Your task to perform on an android device: turn off picture-in-picture Image 0: 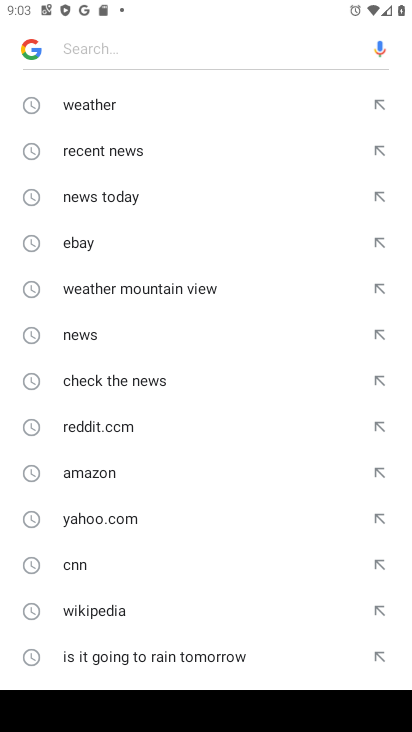
Step 0: press home button
Your task to perform on an android device: turn off picture-in-picture Image 1: 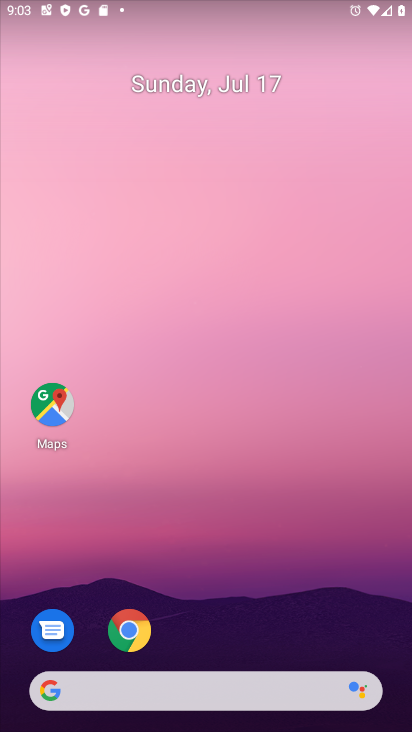
Step 1: drag from (217, 643) to (216, 68)
Your task to perform on an android device: turn off picture-in-picture Image 2: 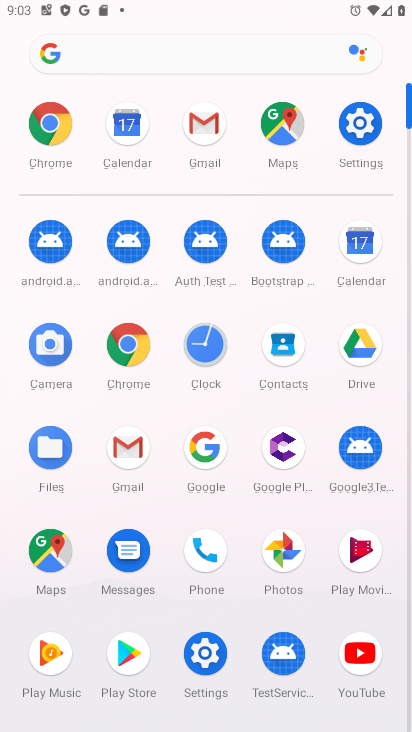
Step 2: click (357, 126)
Your task to perform on an android device: turn off picture-in-picture Image 3: 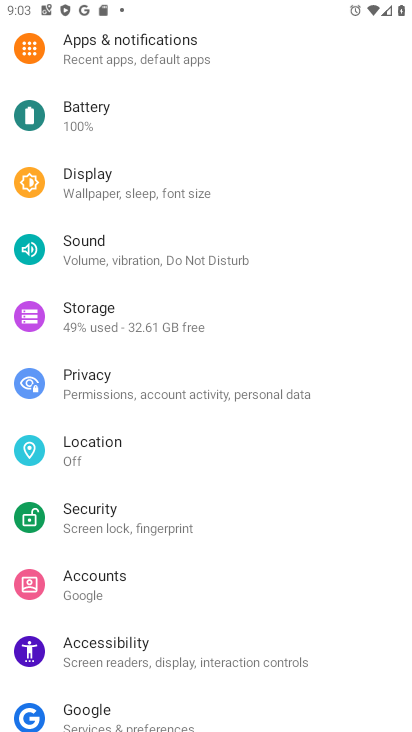
Step 3: click (203, 60)
Your task to perform on an android device: turn off picture-in-picture Image 4: 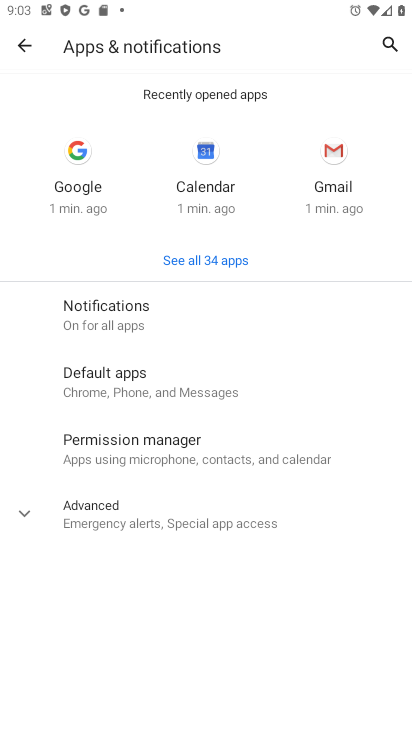
Step 4: click (159, 533)
Your task to perform on an android device: turn off picture-in-picture Image 5: 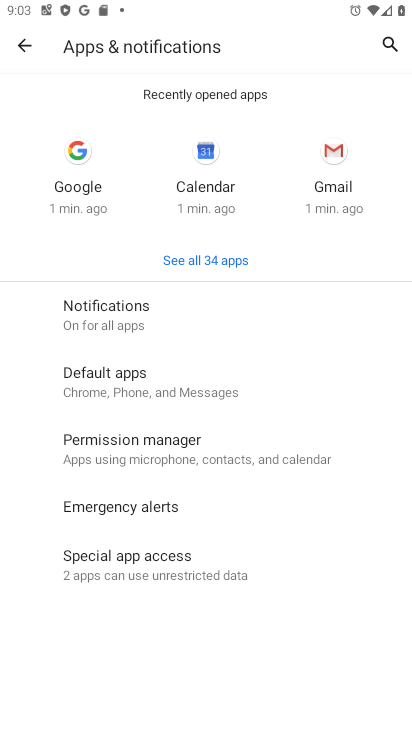
Step 5: click (140, 588)
Your task to perform on an android device: turn off picture-in-picture Image 6: 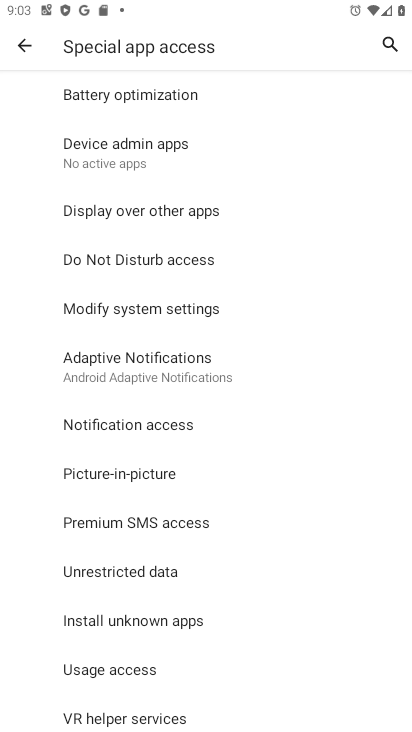
Step 6: click (167, 471)
Your task to perform on an android device: turn off picture-in-picture Image 7: 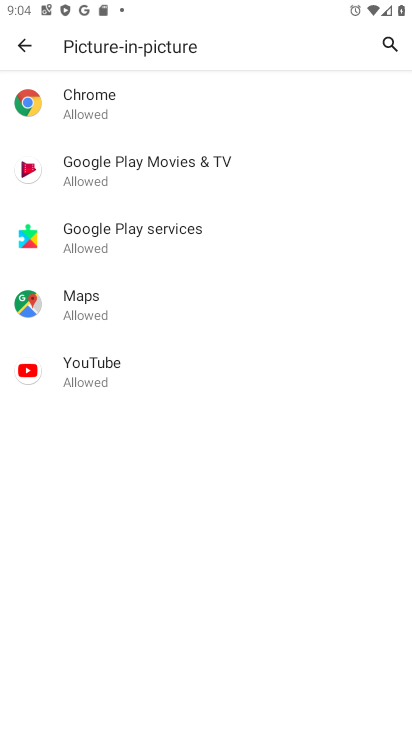
Step 7: click (100, 114)
Your task to perform on an android device: turn off picture-in-picture Image 8: 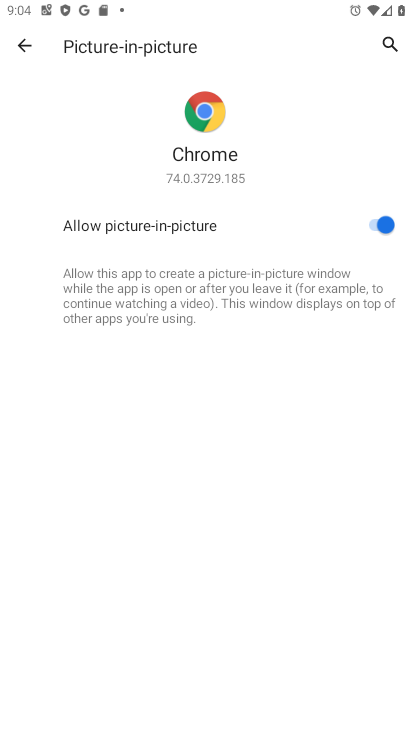
Step 8: click (372, 227)
Your task to perform on an android device: turn off picture-in-picture Image 9: 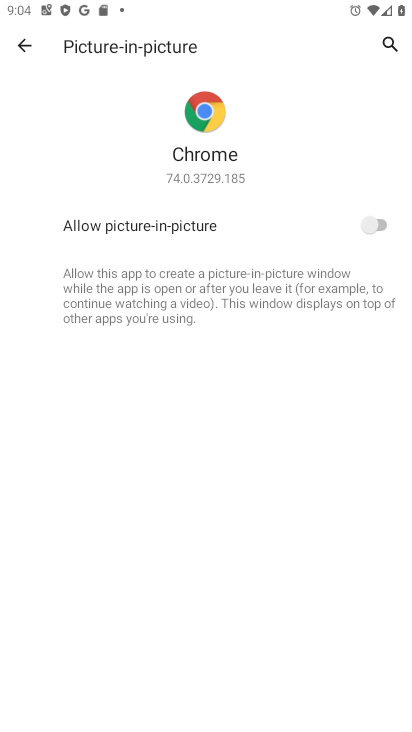
Step 9: task complete